Your task to perform on an android device: open chrome privacy settings Image 0: 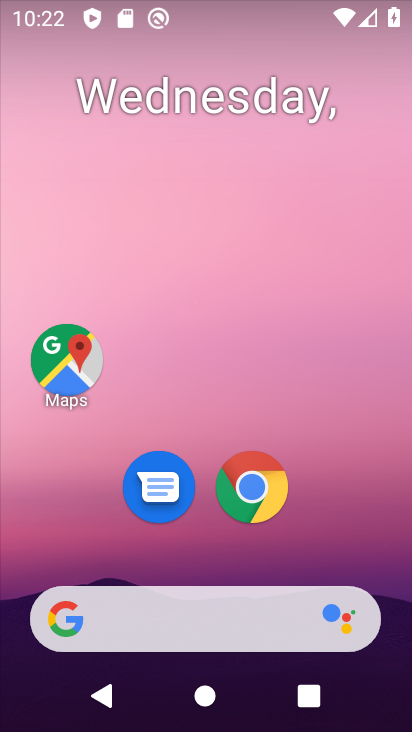
Step 0: drag from (286, 588) to (331, 2)
Your task to perform on an android device: open chrome privacy settings Image 1: 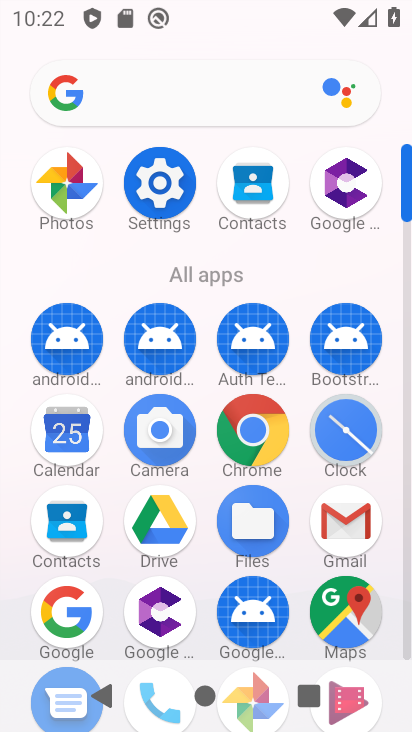
Step 1: click (168, 184)
Your task to perform on an android device: open chrome privacy settings Image 2: 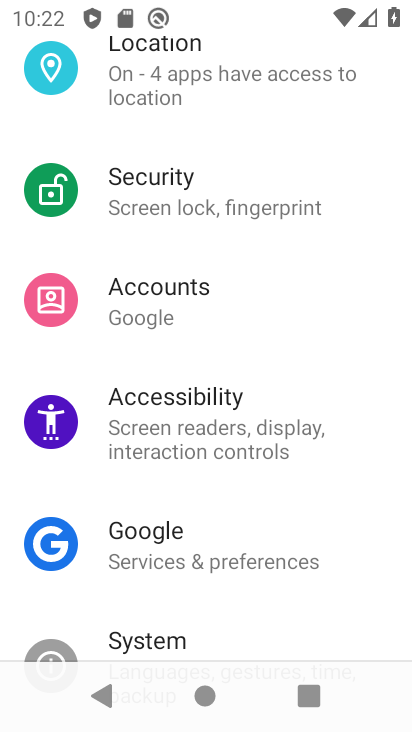
Step 2: drag from (244, 158) to (300, 650)
Your task to perform on an android device: open chrome privacy settings Image 3: 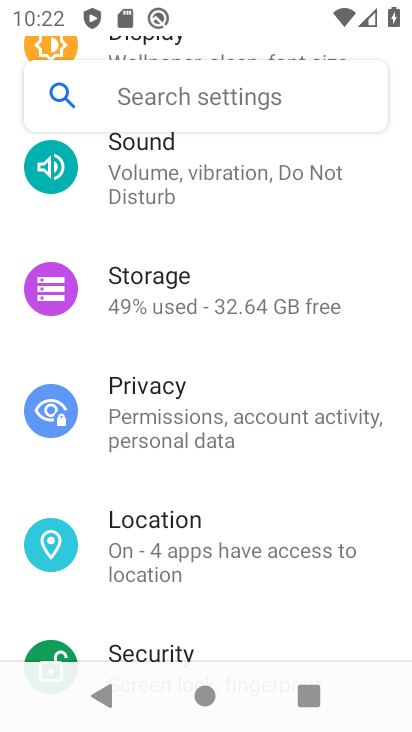
Step 3: click (249, 423)
Your task to perform on an android device: open chrome privacy settings Image 4: 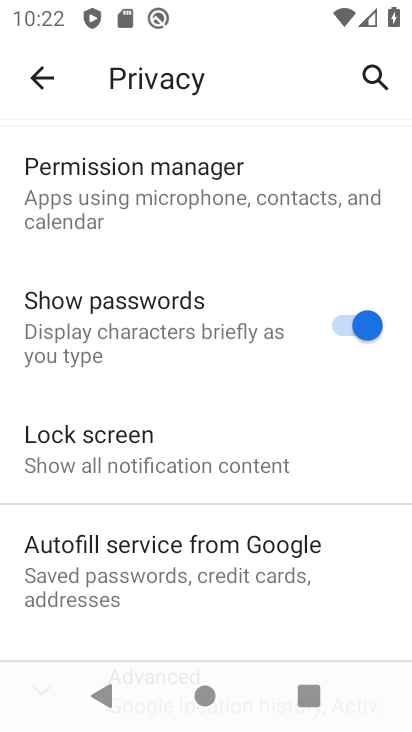
Step 4: press home button
Your task to perform on an android device: open chrome privacy settings Image 5: 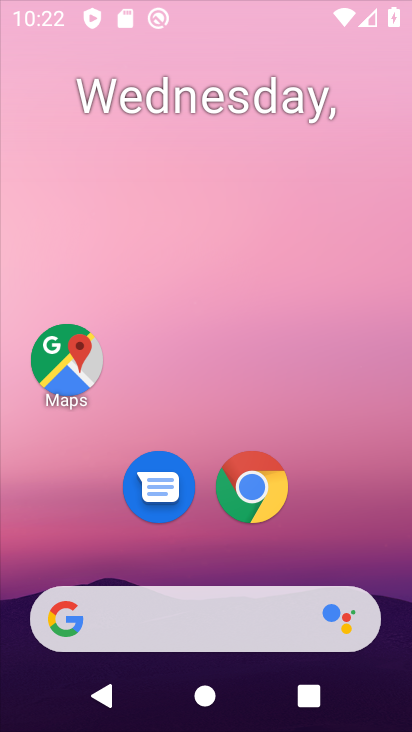
Step 5: drag from (223, 604) to (304, 119)
Your task to perform on an android device: open chrome privacy settings Image 6: 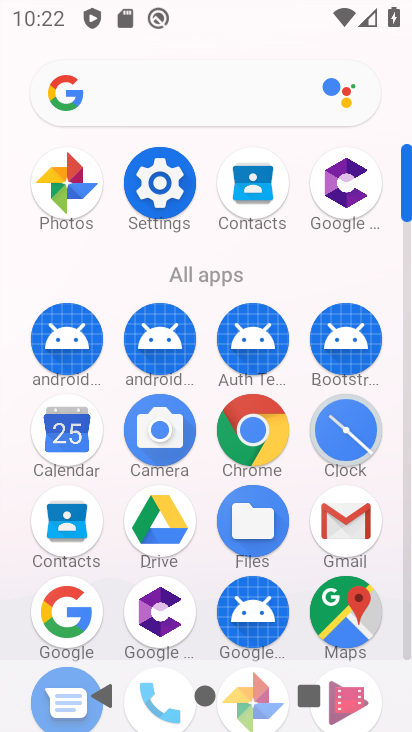
Step 6: click (253, 418)
Your task to perform on an android device: open chrome privacy settings Image 7: 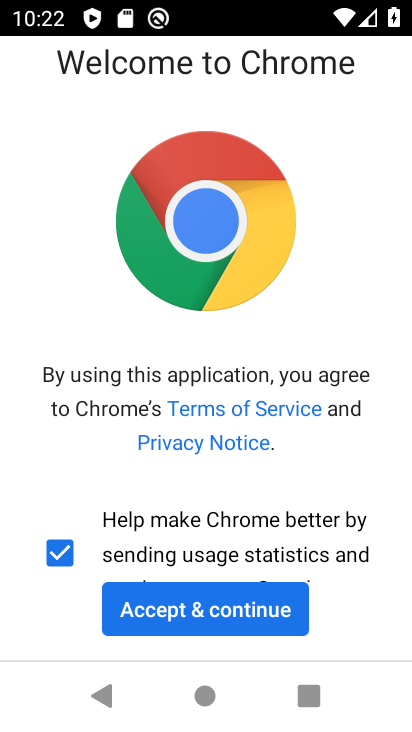
Step 7: click (260, 621)
Your task to perform on an android device: open chrome privacy settings Image 8: 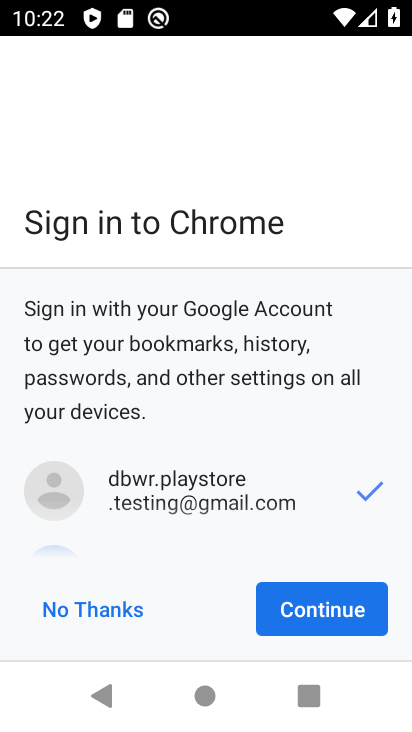
Step 8: click (104, 619)
Your task to perform on an android device: open chrome privacy settings Image 9: 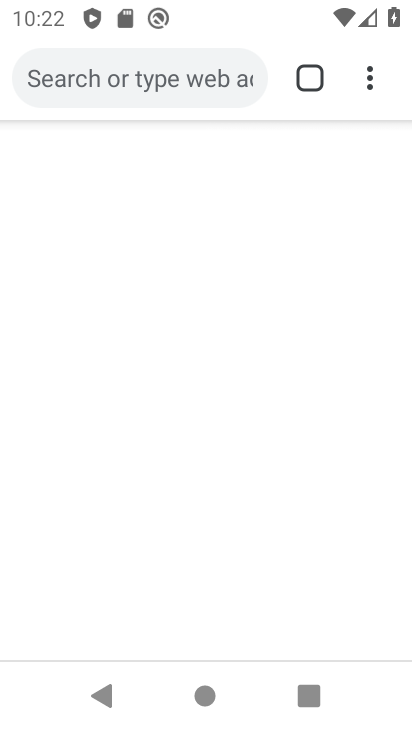
Step 9: drag from (375, 72) to (110, 549)
Your task to perform on an android device: open chrome privacy settings Image 10: 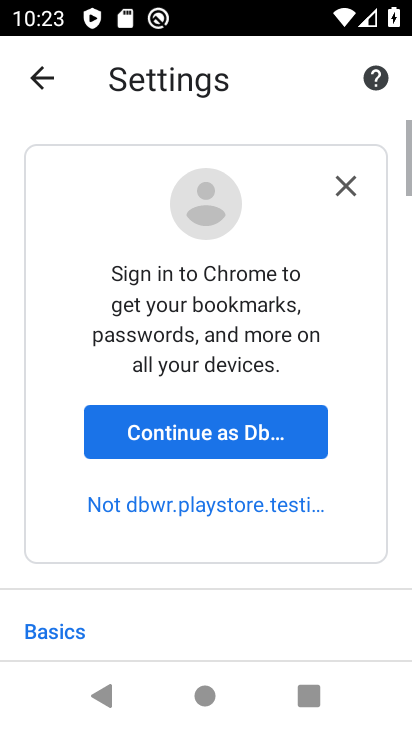
Step 10: drag from (204, 579) to (275, 29)
Your task to perform on an android device: open chrome privacy settings Image 11: 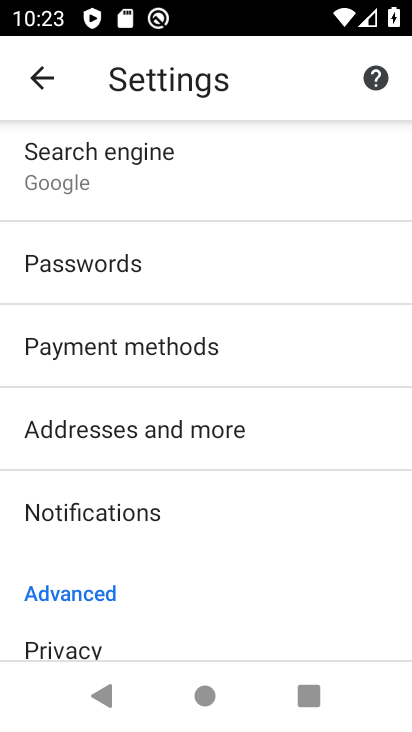
Step 11: drag from (335, 601) to (356, 348)
Your task to perform on an android device: open chrome privacy settings Image 12: 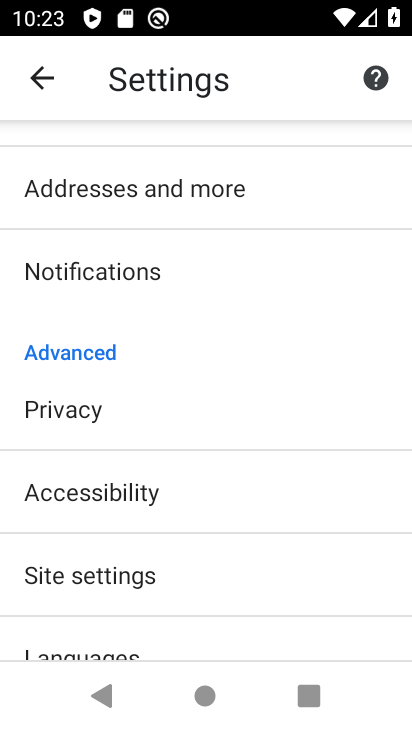
Step 12: click (257, 427)
Your task to perform on an android device: open chrome privacy settings Image 13: 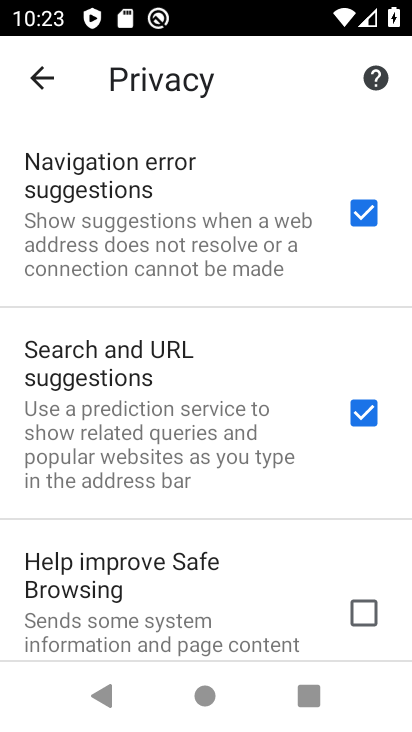
Step 13: task complete